Your task to perform on an android device: set an alarm Image 0: 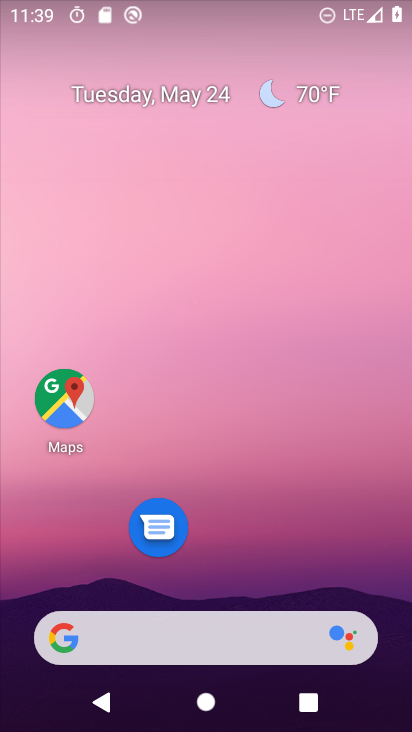
Step 0: drag from (247, 555) to (358, 104)
Your task to perform on an android device: set an alarm Image 1: 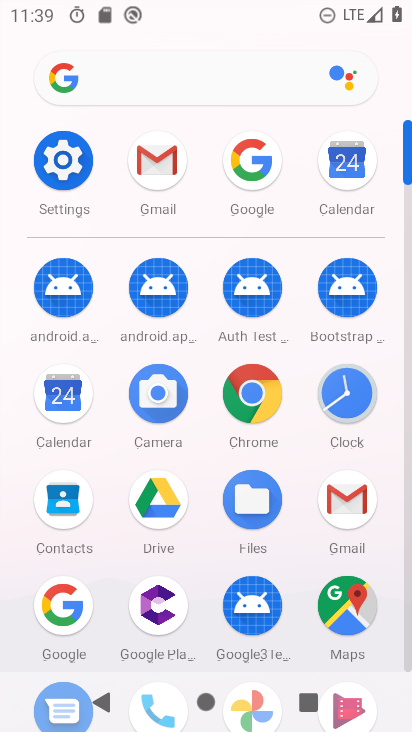
Step 1: click (353, 401)
Your task to perform on an android device: set an alarm Image 2: 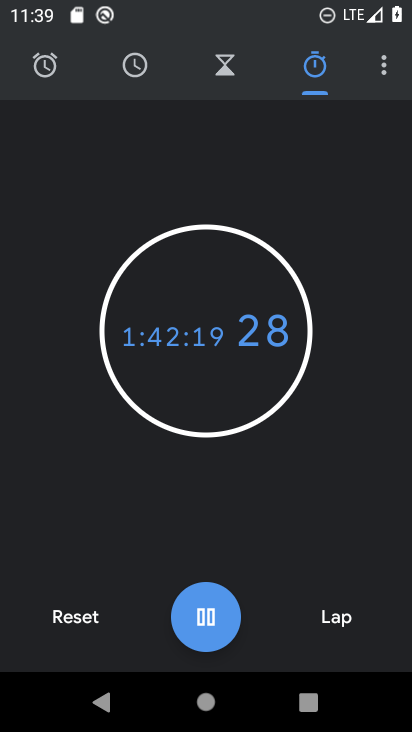
Step 2: click (53, 68)
Your task to perform on an android device: set an alarm Image 3: 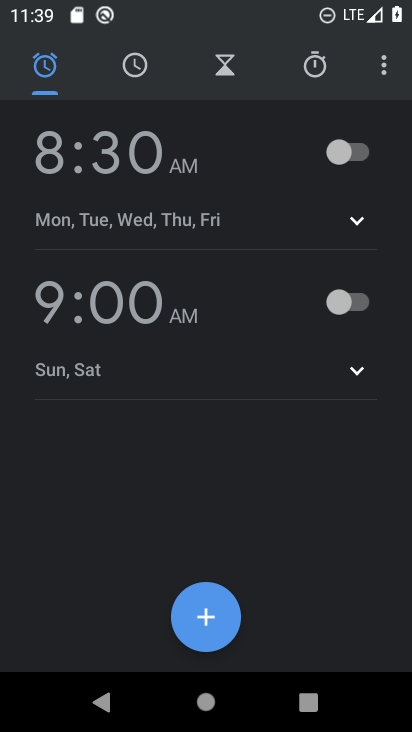
Step 3: click (334, 132)
Your task to perform on an android device: set an alarm Image 4: 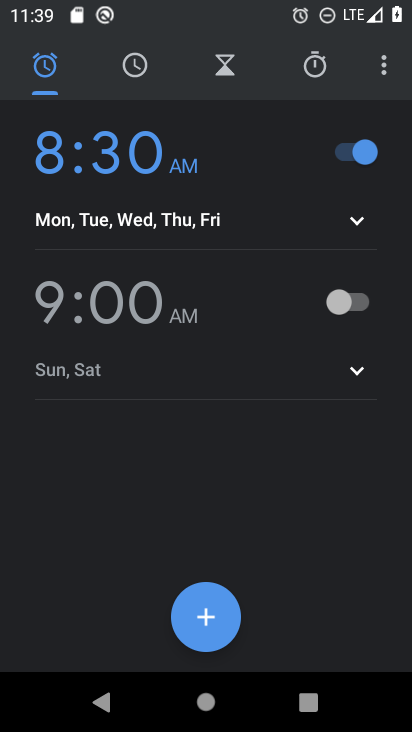
Step 4: task complete